Your task to perform on an android device: Go to calendar. Show me events next week Image 0: 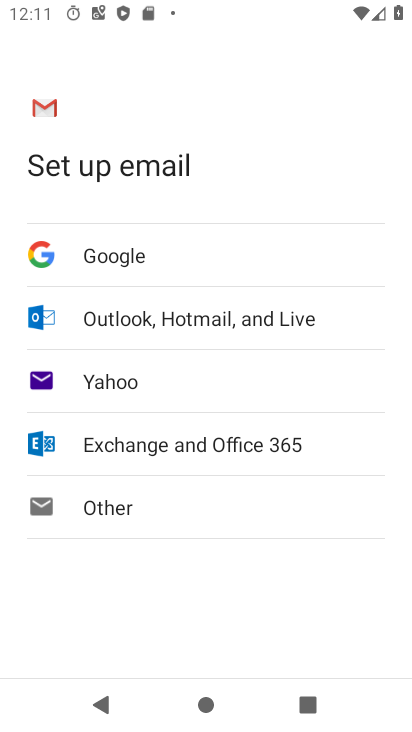
Step 0: press home button
Your task to perform on an android device: Go to calendar. Show me events next week Image 1: 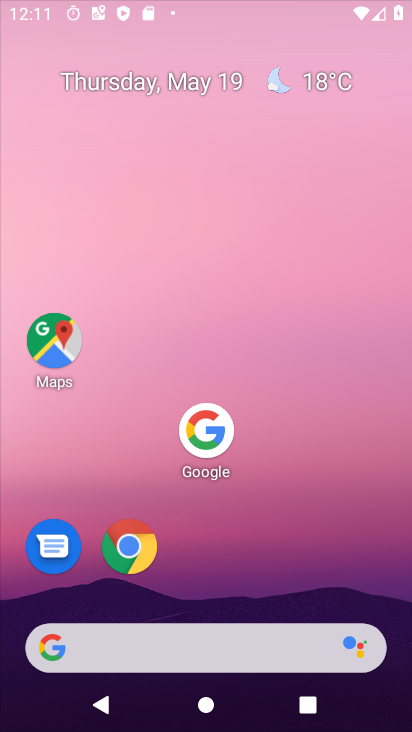
Step 1: drag from (263, 573) to (280, 30)
Your task to perform on an android device: Go to calendar. Show me events next week Image 2: 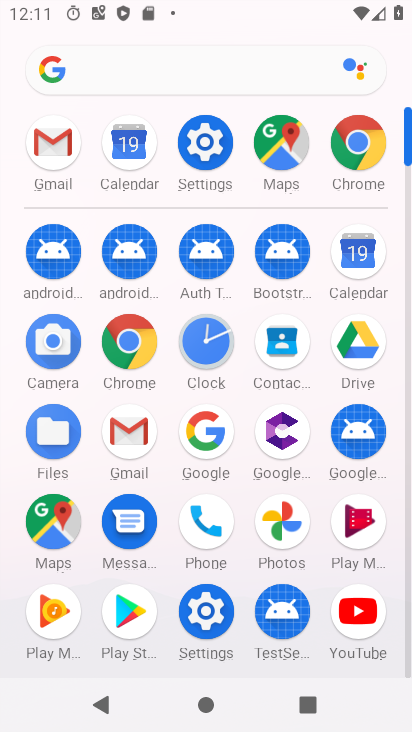
Step 2: click (364, 250)
Your task to perform on an android device: Go to calendar. Show me events next week Image 3: 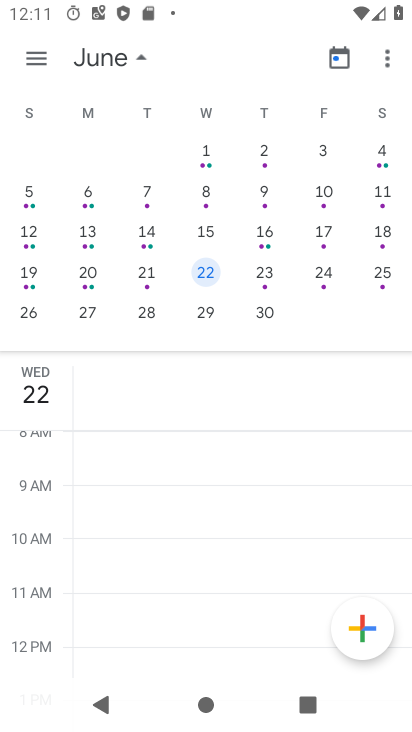
Step 3: drag from (74, 311) to (405, 253)
Your task to perform on an android device: Go to calendar. Show me events next week Image 4: 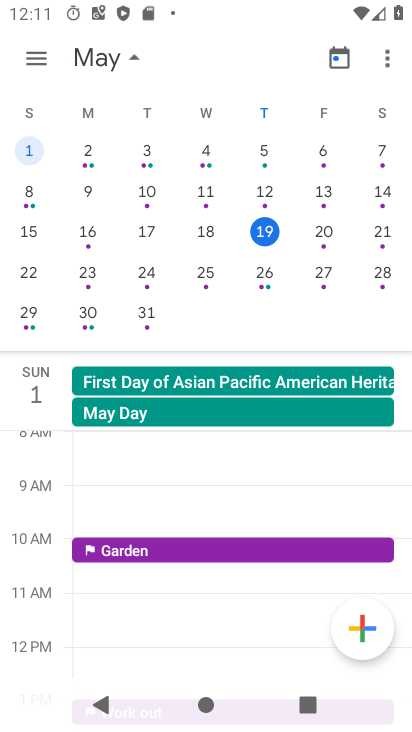
Step 4: click (85, 273)
Your task to perform on an android device: Go to calendar. Show me events next week Image 5: 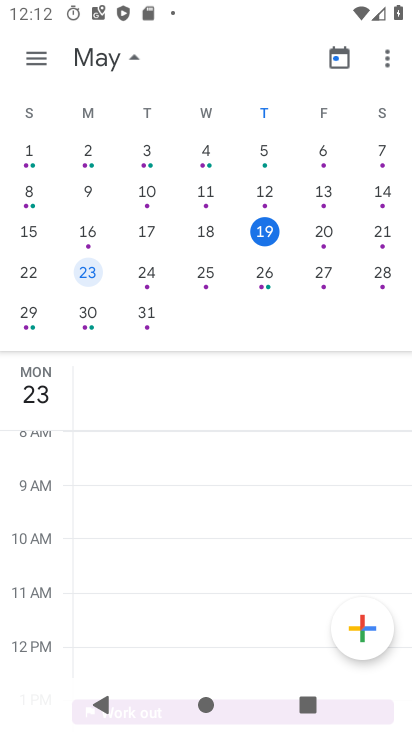
Step 5: task complete